Your task to perform on an android device: Open calendar and show me the second week of next month Image 0: 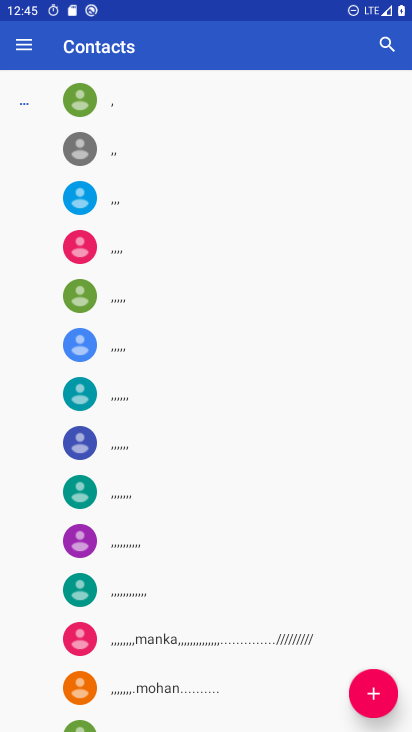
Step 0: press home button
Your task to perform on an android device: Open calendar and show me the second week of next month Image 1: 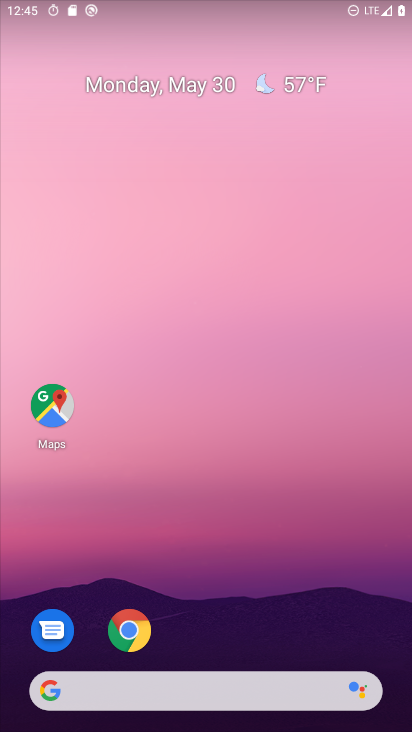
Step 1: drag from (194, 714) to (204, 24)
Your task to perform on an android device: Open calendar and show me the second week of next month Image 2: 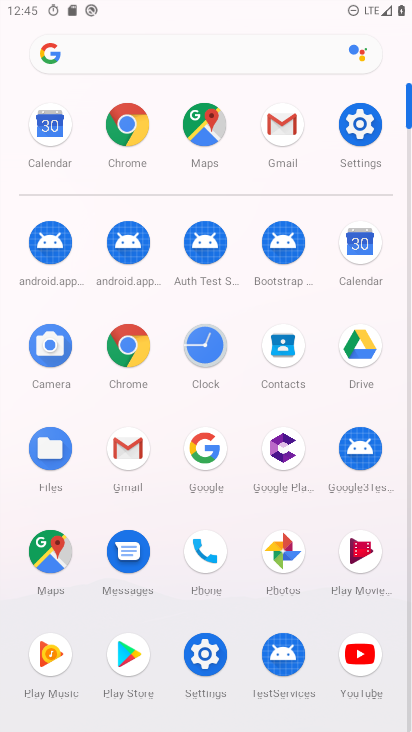
Step 2: click (54, 123)
Your task to perform on an android device: Open calendar and show me the second week of next month Image 3: 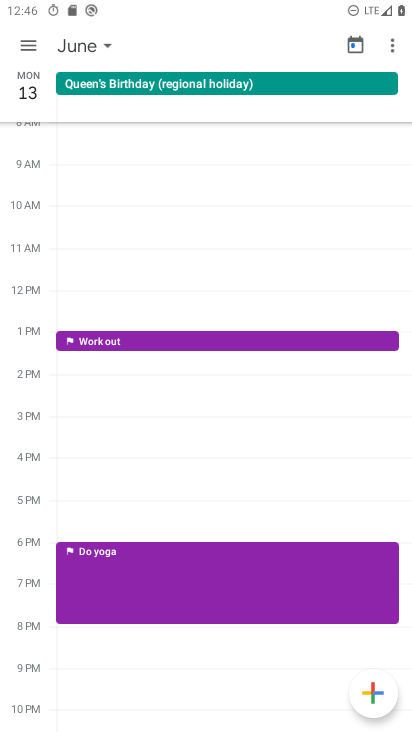
Step 3: task complete